Your task to perform on an android device: allow cookies in the chrome app Image 0: 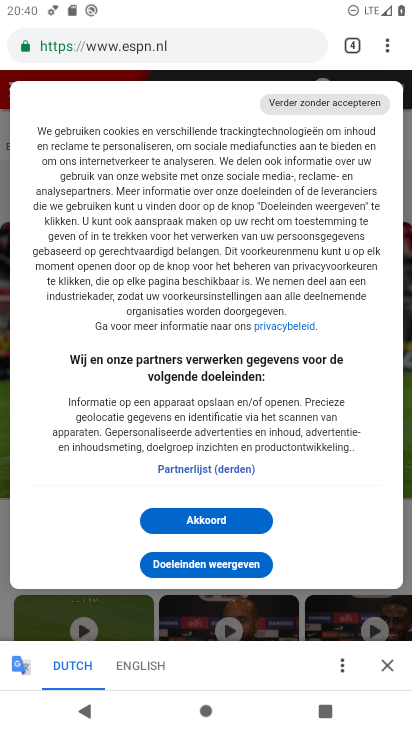
Step 0: press home button
Your task to perform on an android device: allow cookies in the chrome app Image 1: 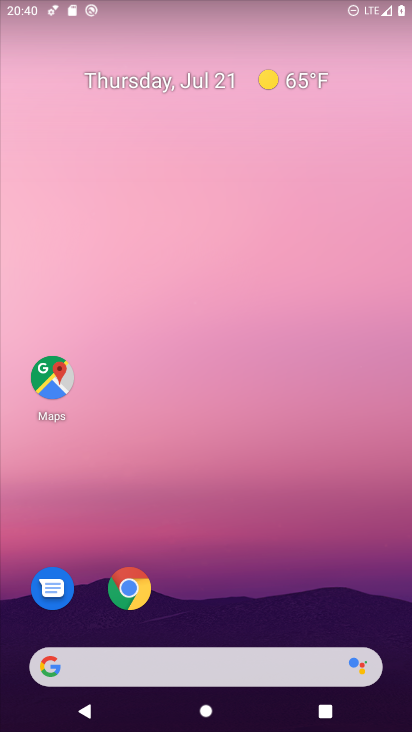
Step 1: click (136, 581)
Your task to perform on an android device: allow cookies in the chrome app Image 2: 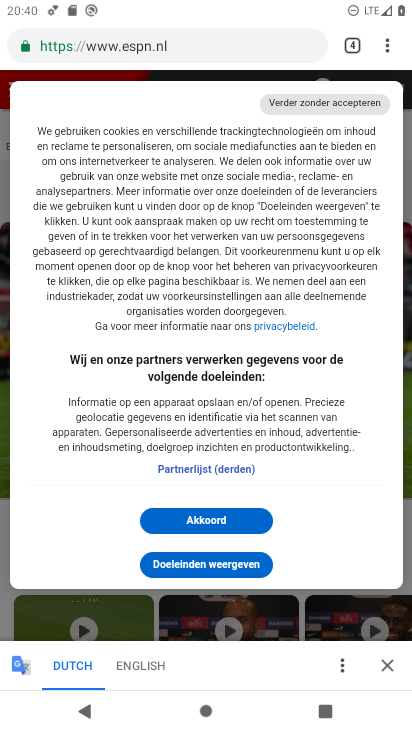
Step 2: drag from (384, 37) to (225, 541)
Your task to perform on an android device: allow cookies in the chrome app Image 3: 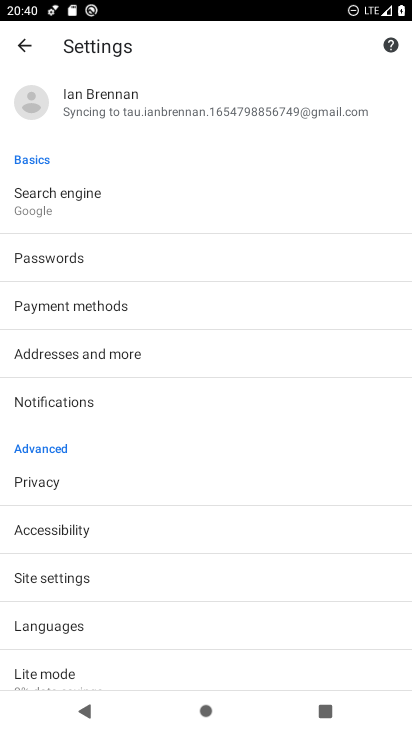
Step 3: click (42, 598)
Your task to perform on an android device: allow cookies in the chrome app Image 4: 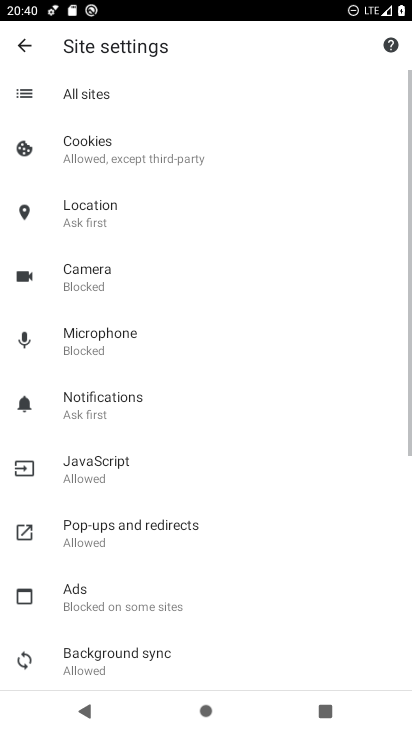
Step 4: click (92, 148)
Your task to perform on an android device: allow cookies in the chrome app Image 5: 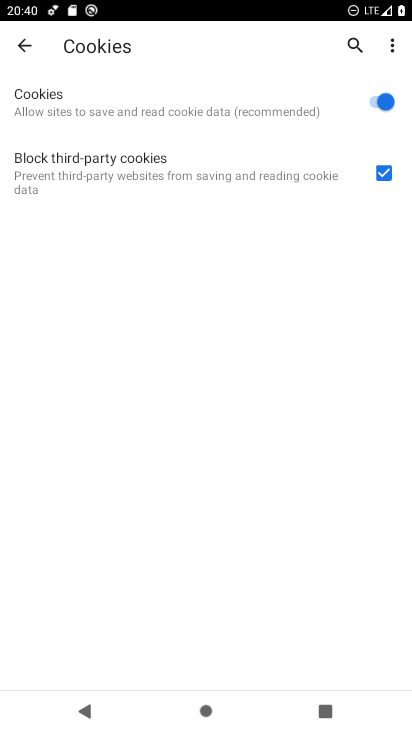
Step 5: task complete